Your task to perform on an android device: open app "Skype" (install if not already installed) Image 0: 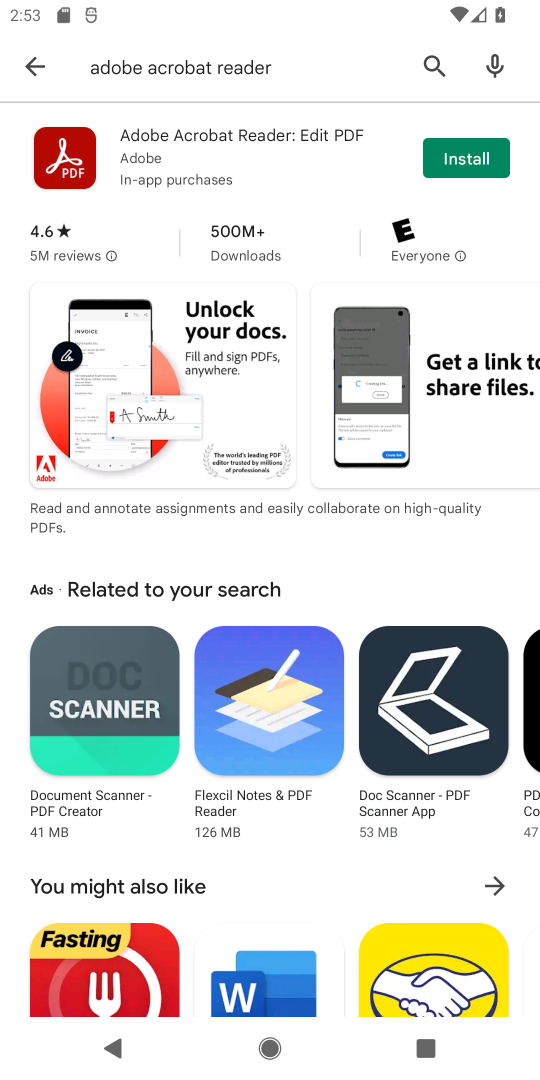
Step 0: click (412, 55)
Your task to perform on an android device: open app "Skype" (install if not already installed) Image 1: 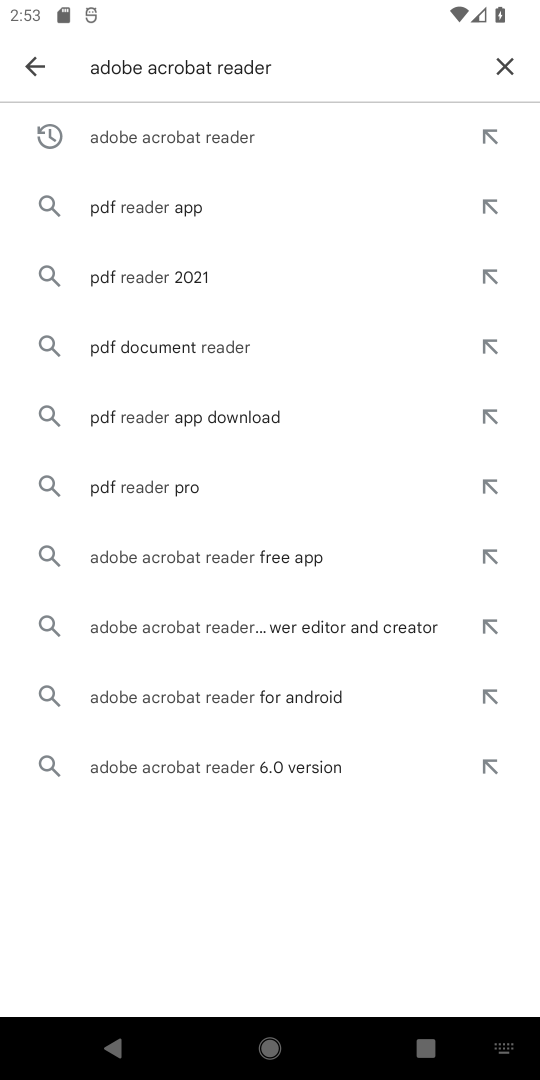
Step 1: click (510, 63)
Your task to perform on an android device: open app "Skype" (install if not already installed) Image 2: 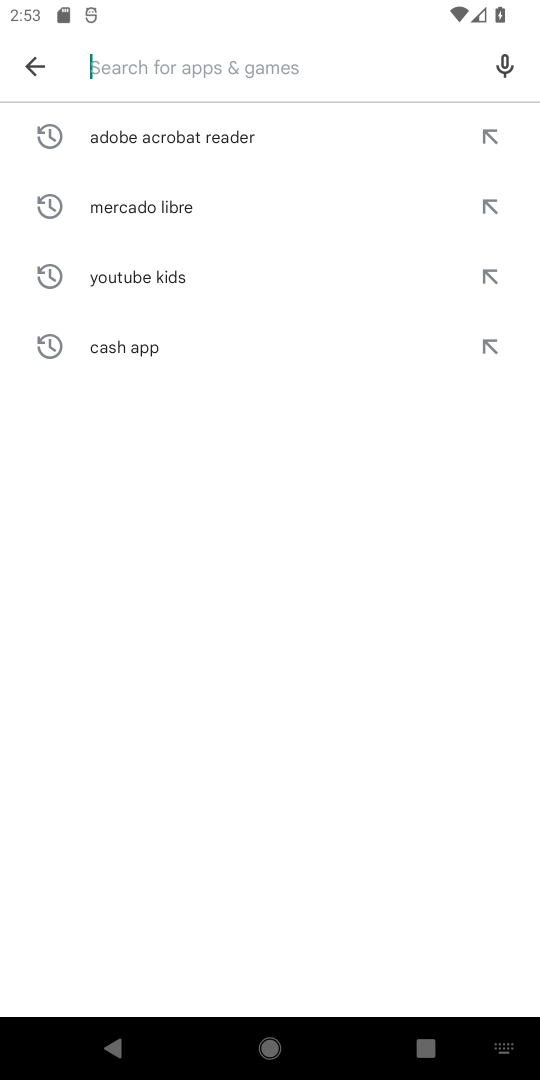
Step 2: type "Skype"
Your task to perform on an android device: open app "Skype" (install if not already installed) Image 3: 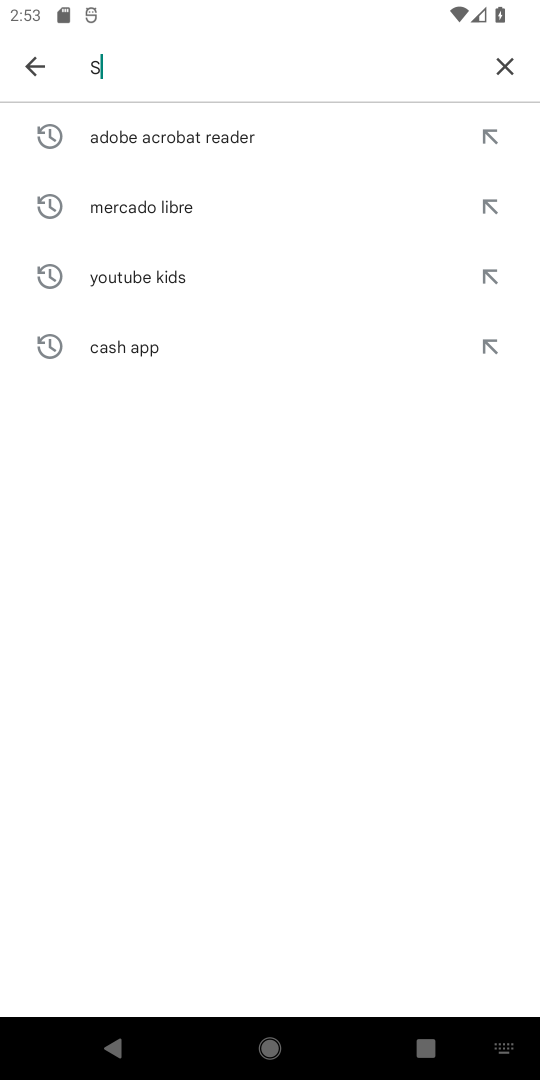
Step 3: type ""
Your task to perform on an android device: open app "Skype" (install if not already installed) Image 4: 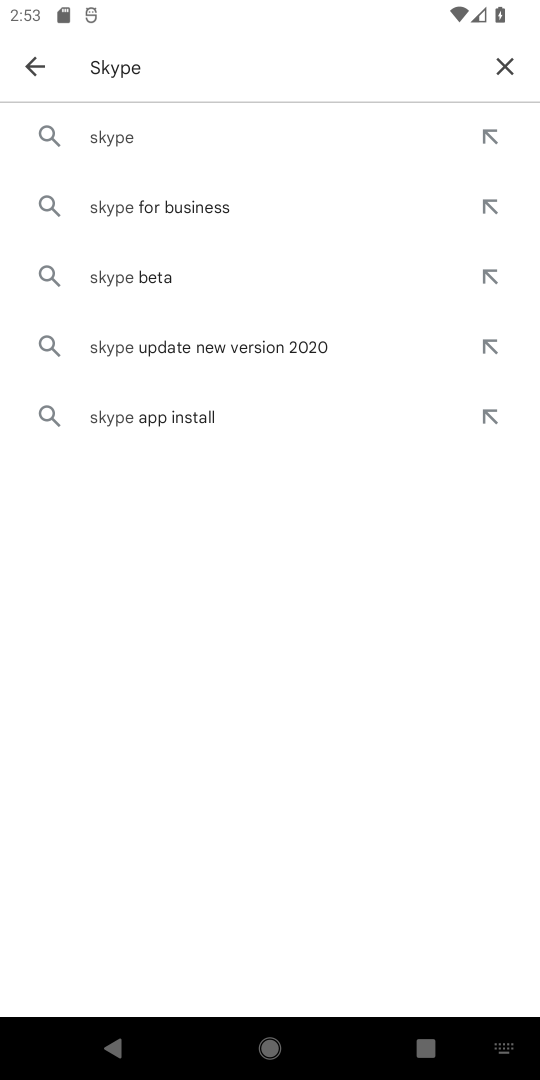
Step 4: click (77, 124)
Your task to perform on an android device: open app "Skype" (install if not already installed) Image 5: 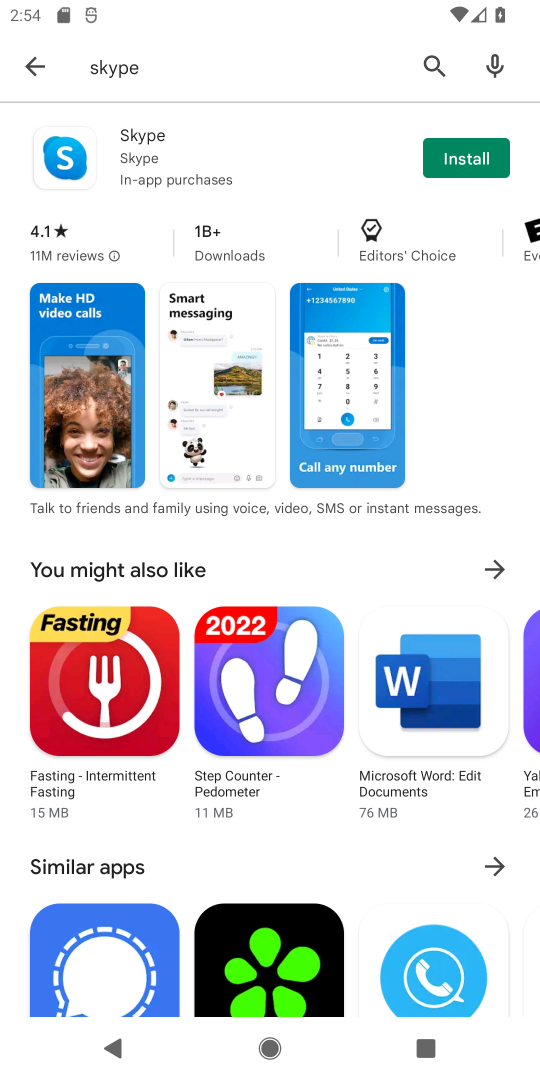
Step 5: click (469, 153)
Your task to perform on an android device: open app "Skype" (install if not already installed) Image 6: 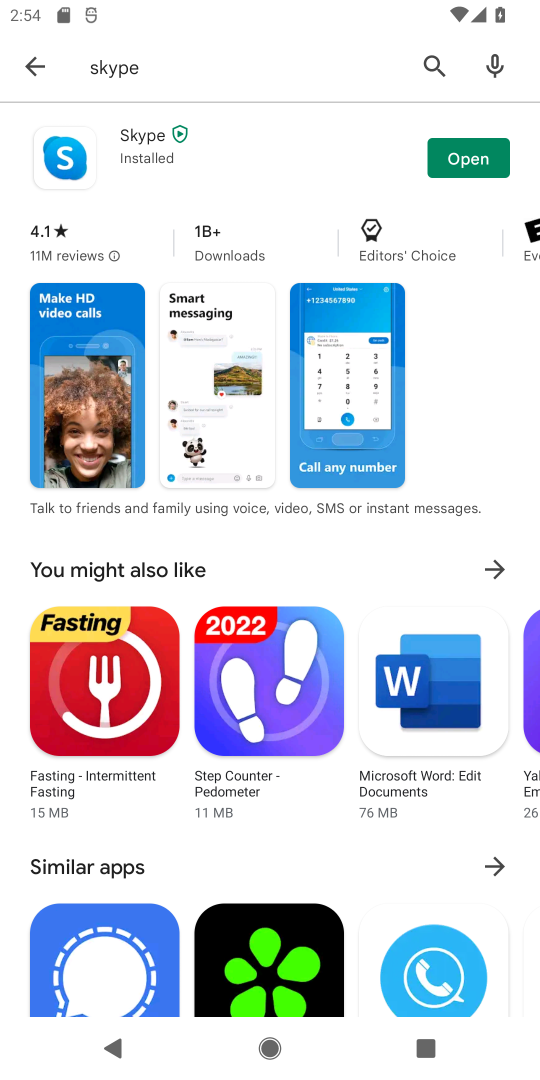
Step 6: click (472, 148)
Your task to perform on an android device: open app "Skype" (install if not already installed) Image 7: 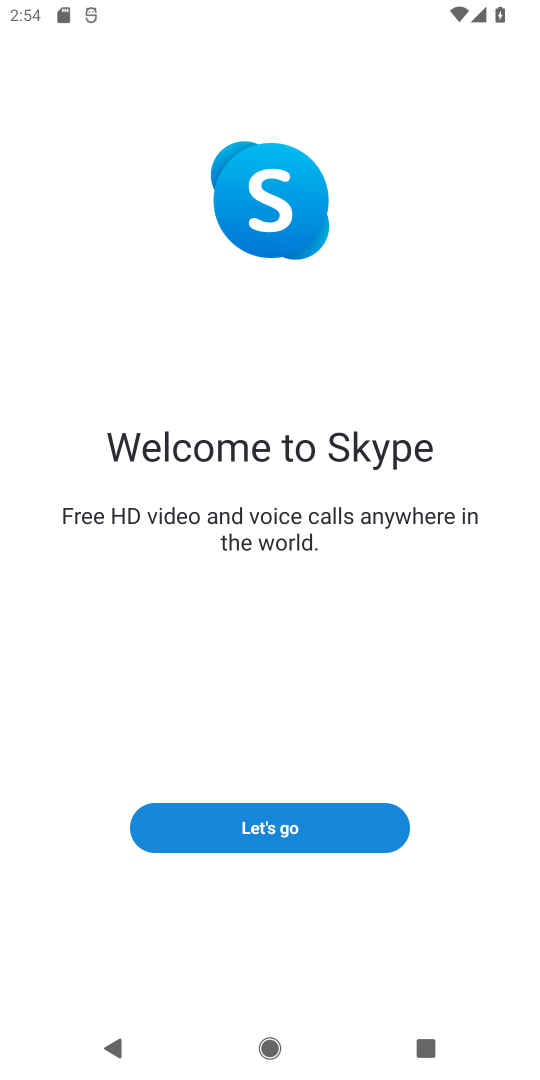
Step 7: task complete